Your task to perform on an android device: turn off airplane mode Image 0: 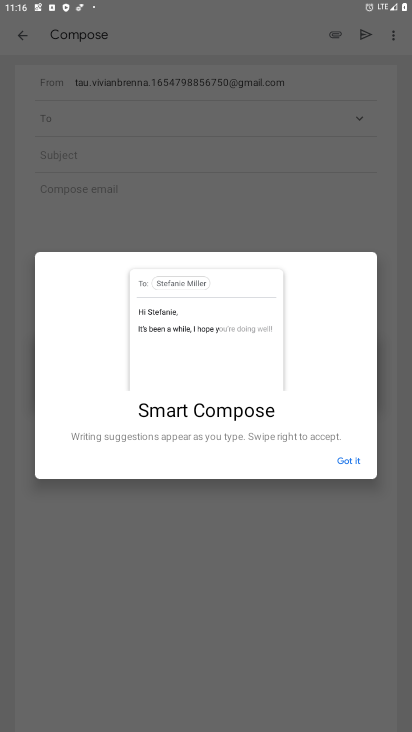
Step 0: drag from (314, 12) to (251, 720)
Your task to perform on an android device: turn off airplane mode Image 1: 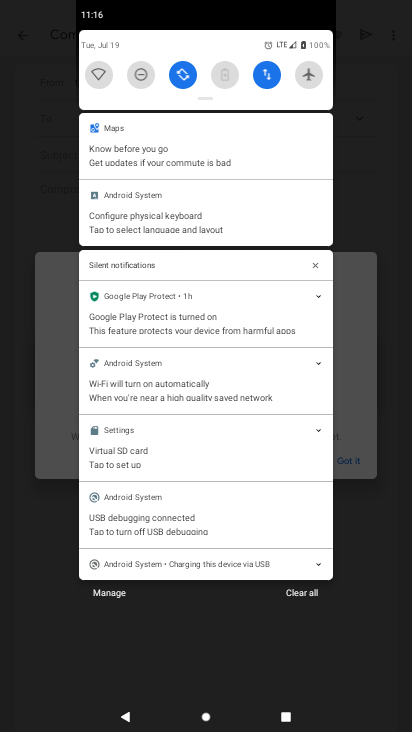
Step 1: task complete